Your task to perform on an android device: Go to Google Image 0: 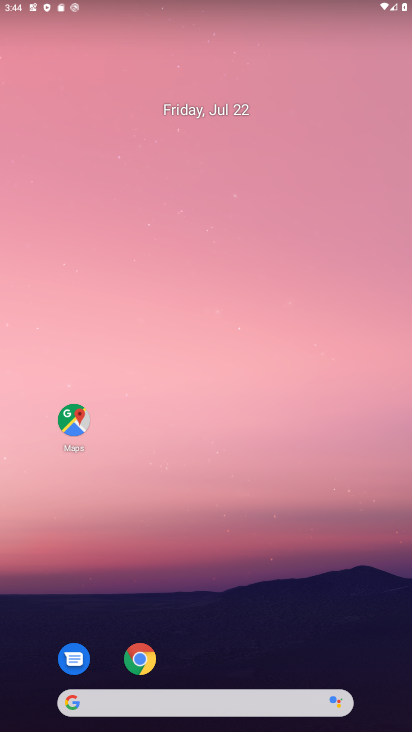
Step 0: click (172, 697)
Your task to perform on an android device: Go to Google Image 1: 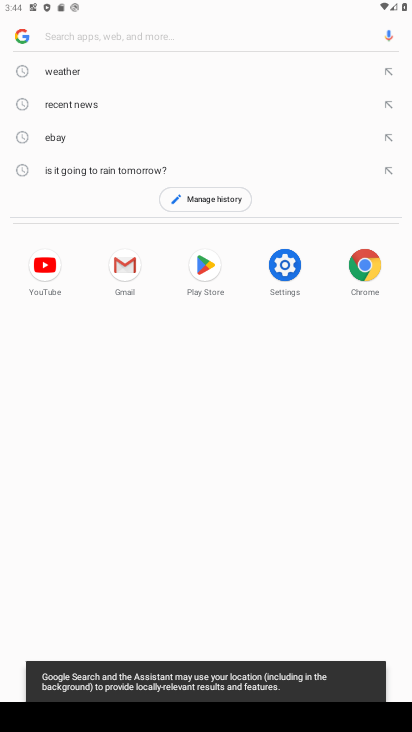
Step 1: task complete